Your task to perform on an android device: Open calendar and show me the third week of next month Image 0: 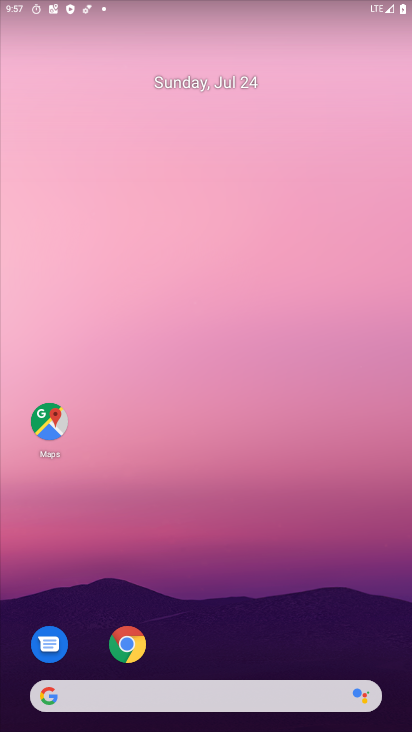
Step 0: drag from (210, 672) to (277, 248)
Your task to perform on an android device: Open calendar and show me the third week of next month Image 1: 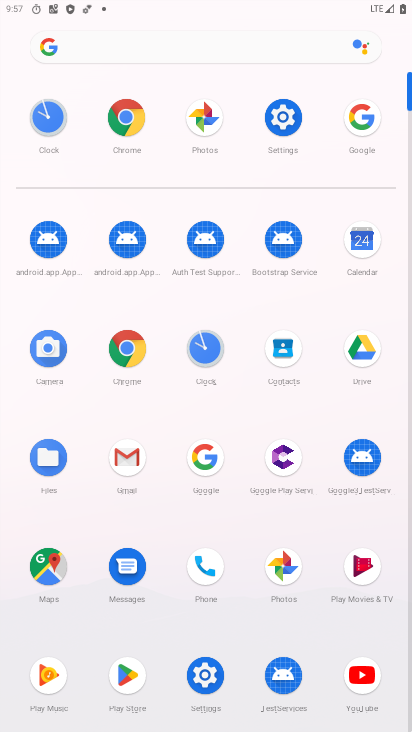
Step 1: click (367, 246)
Your task to perform on an android device: Open calendar and show me the third week of next month Image 2: 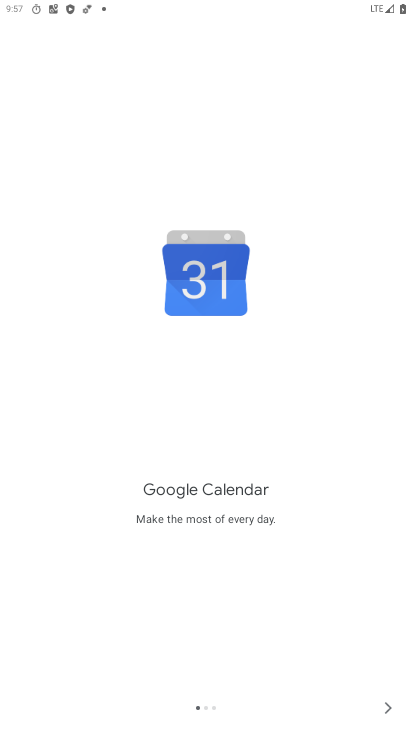
Step 2: click (388, 711)
Your task to perform on an android device: Open calendar and show me the third week of next month Image 3: 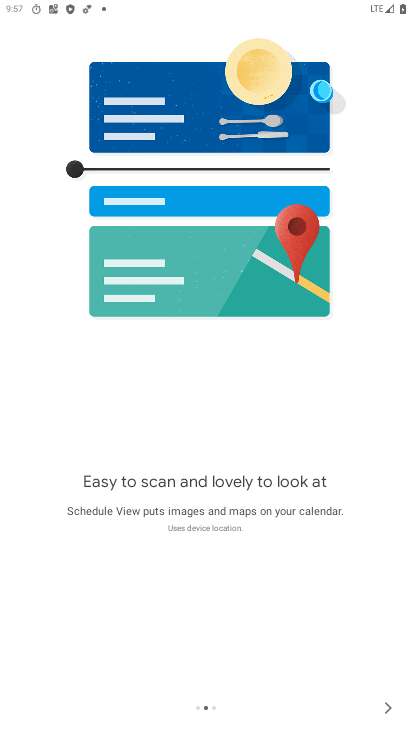
Step 3: click (388, 711)
Your task to perform on an android device: Open calendar and show me the third week of next month Image 4: 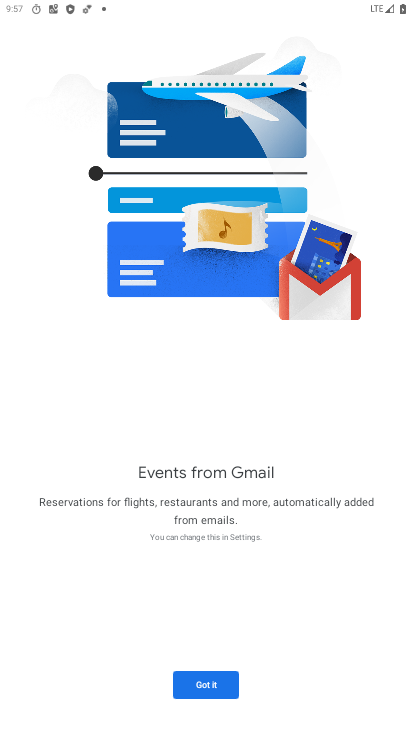
Step 4: click (229, 683)
Your task to perform on an android device: Open calendar and show me the third week of next month Image 5: 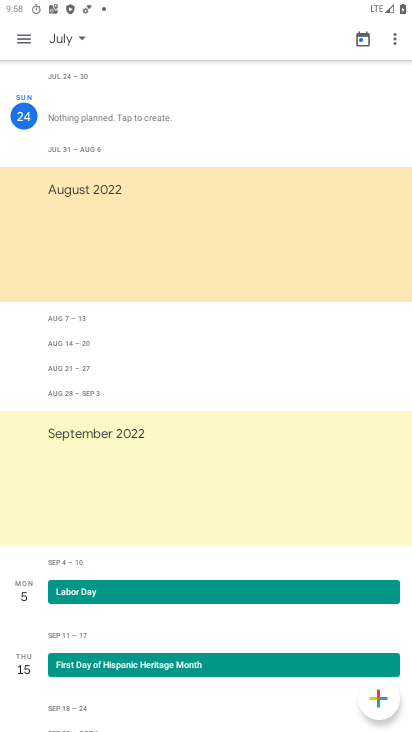
Step 5: click (76, 38)
Your task to perform on an android device: Open calendar and show me the third week of next month Image 6: 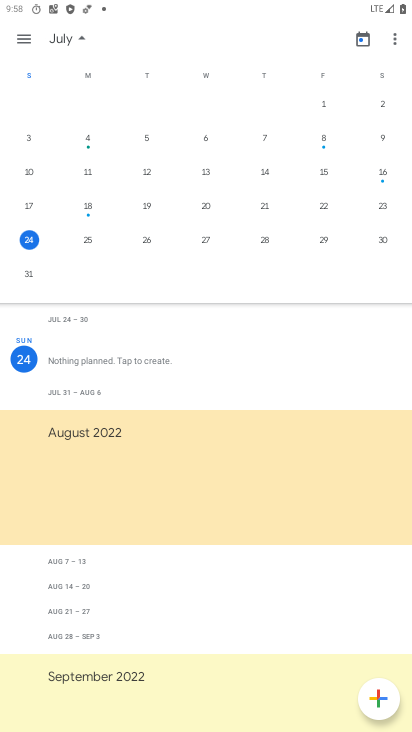
Step 6: drag from (373, 211) to (9, 250)
Your task to perform on an android device: Open calendar and show me the third week of next month Image 7: 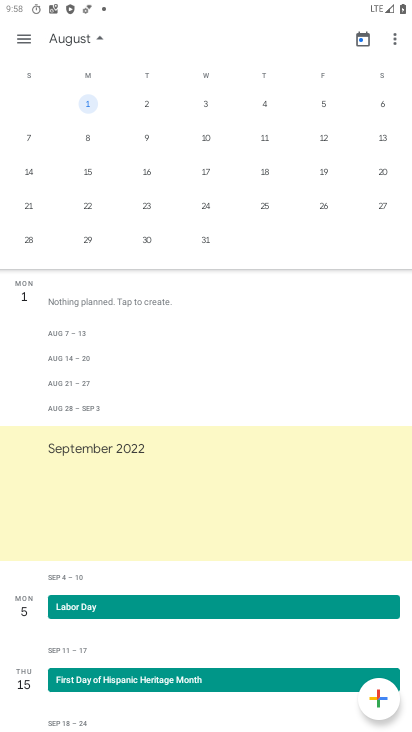
Step 7: click (19, 173)
Your task to perform on an android device: Open calendar and show me the third week of next month Image 8: 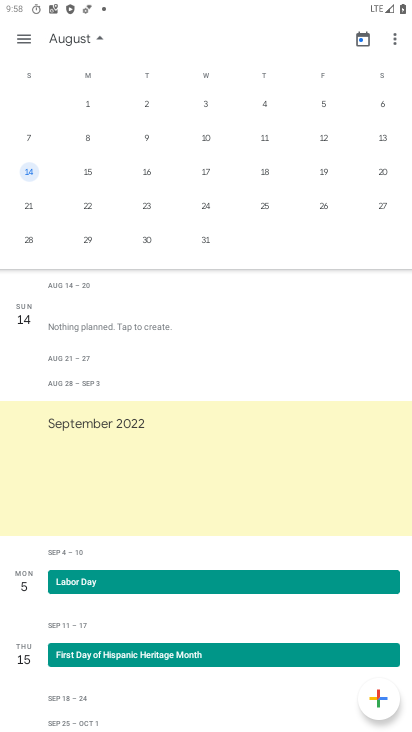
Step 8: task complete